Your task to perform on an android device: What's the weather going to be tomorrow? Image 0: 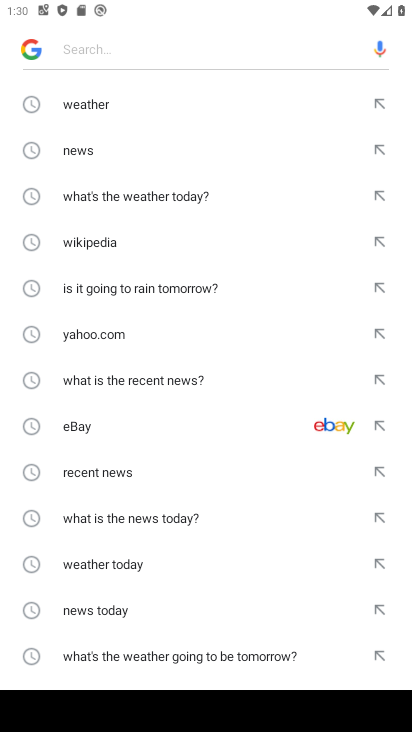
Step 0: press home button
Your task to perform on an android device: What's the weather going to be tomorrow? Image 1: 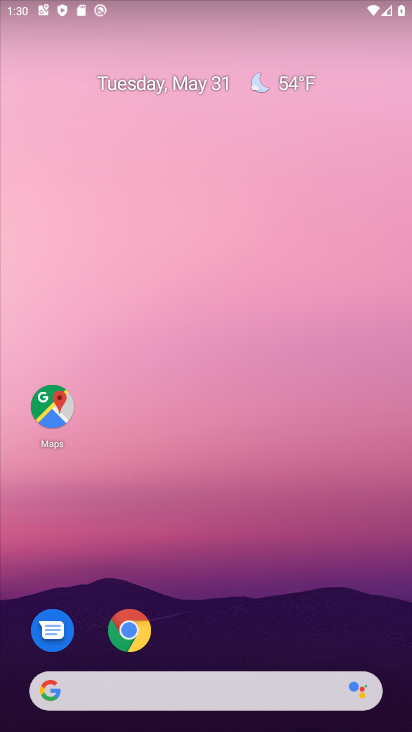
Step 1: drag from (255, 596) to (312, 117)
Your task to perform on an android device: What's the weather going to be tomorrow? Image 2: 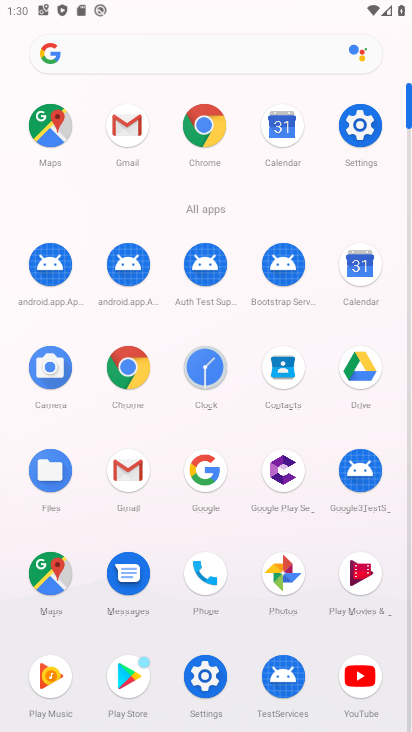
Step 2: click (207, 477)
Your task to perform on an android device: What's the weather going to be tomorrow? Image 3: 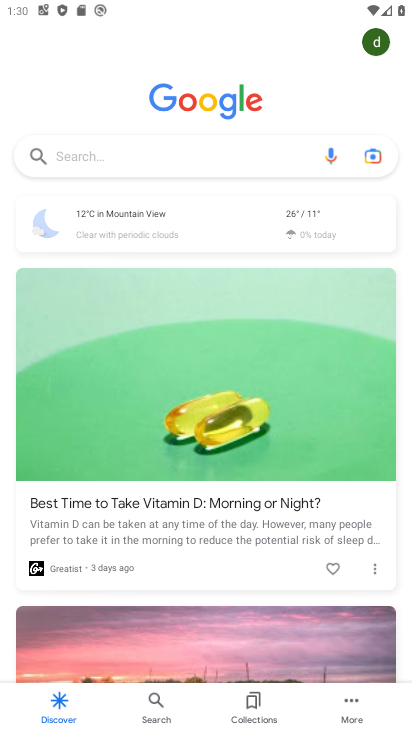
Step 3: click (151, 163)
Your task to perform on an android device: What's the weather going to be tomorrow? Image 4: 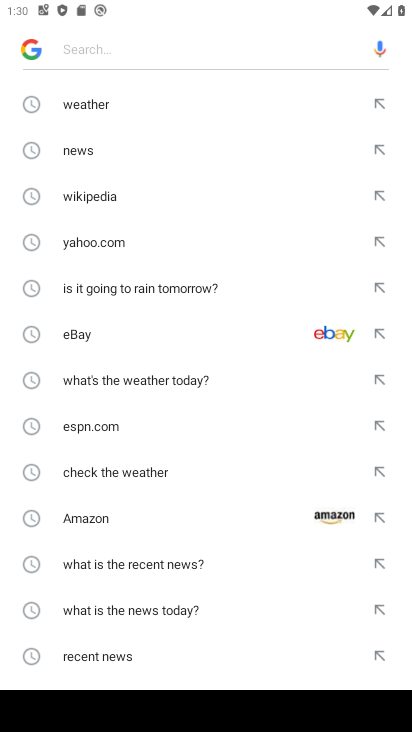
Step 4: drag from (203, 568) to (198, 149)
Your task to perform on an android device: What's the weather going to be tomorrow? Image 5: 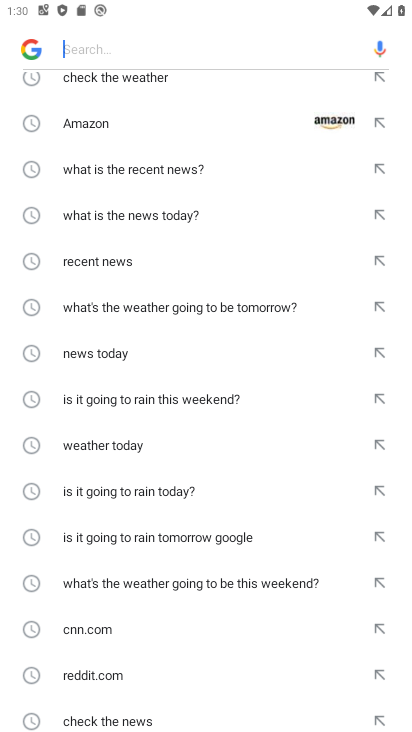
Step 5: click (147, 304)
Your task to perform on an android device: What's the weather going to be tomorrow? Image 6: 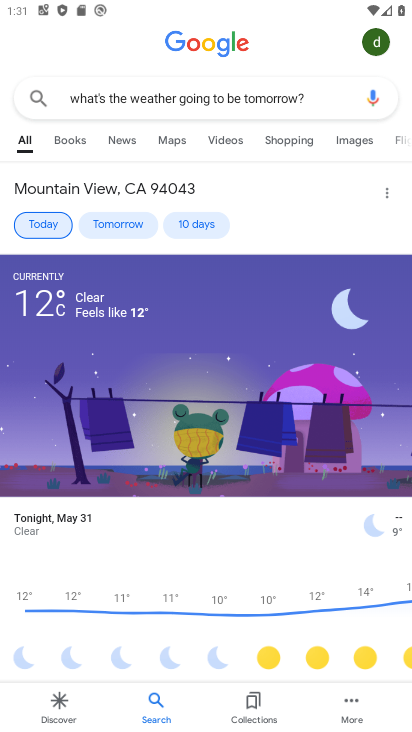
Step 6: task complete